Your task to perform on an android device: Search for Mexican restaurants on Maps Image 0: 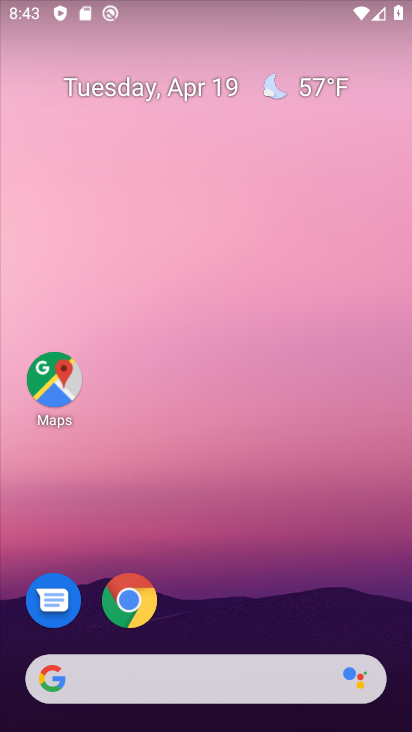
Step 0: drag from (362, 615) to (373, 84)
Your task to perform on an android device: Search for Mexican restaurants on Maps Image 1: 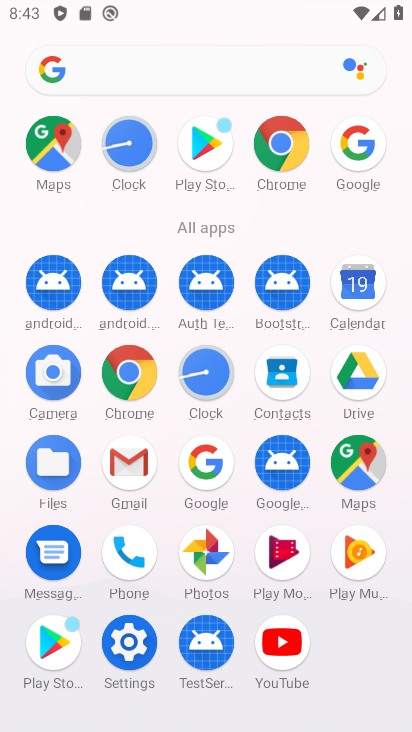
Step 1: click (368, 458)
Your task to perform on an android device: Search for Mexican restaurants on Maps Image 2: 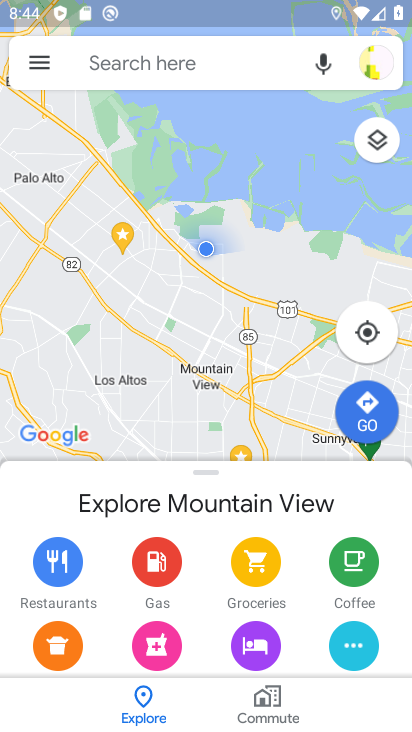
Step 2: click (214, 63)
Your task to perform on an android device: Search for Mexican restaurants on Maps Image 3: 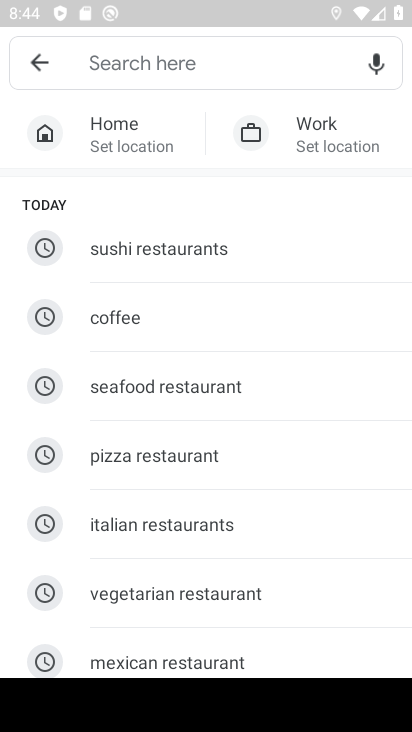
Step 3: type "mexcian restaurants"
Your task to perform on an android device: Search for Mexican restaurants on Maps Image 4: 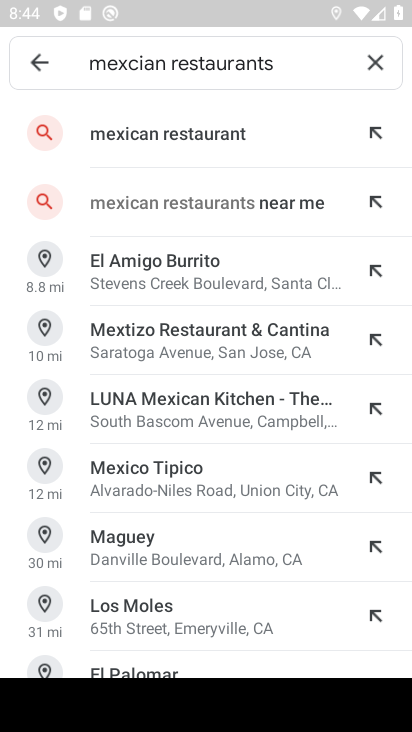
Step 4: click (211, 129)
Your task to perform on an android device: Search for Mexican restaurants on Maps Image 5: 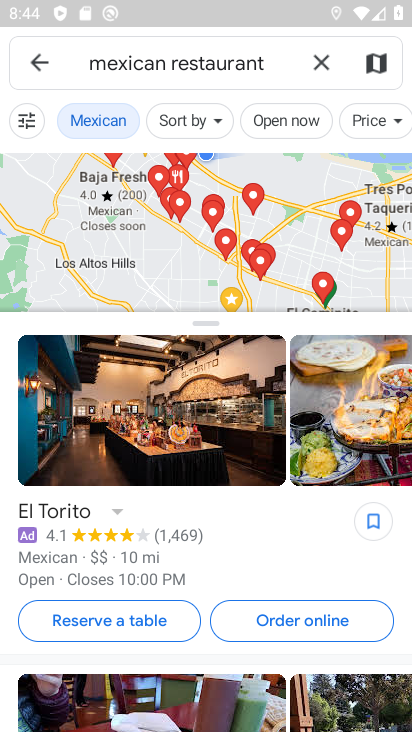
Step 5: task complete